Your task to perform on an android device: Search for vegetarian restaurants on Maps Image 0: 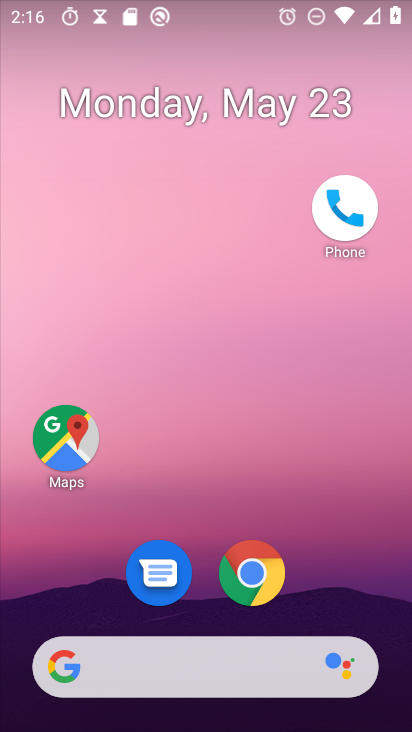
Step 0: click (53, 452)
Your task to perform on an android device: Search for vegetarian restaurants on Maps Image 1: 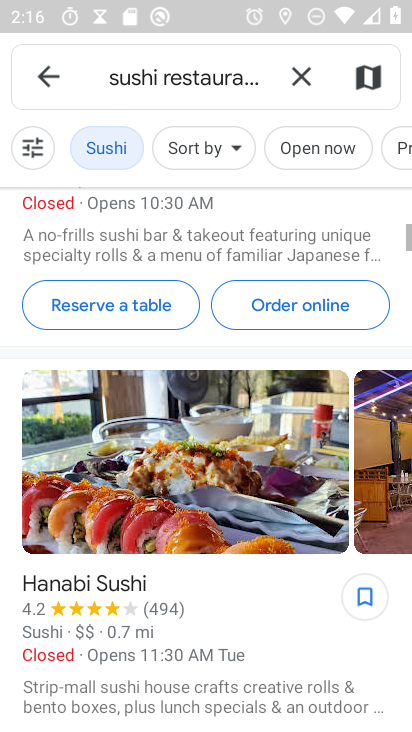
Step 1: click (300, 77)
Your task to perform on an android device: Search for vegetarian restaurants on Maps Image 2: 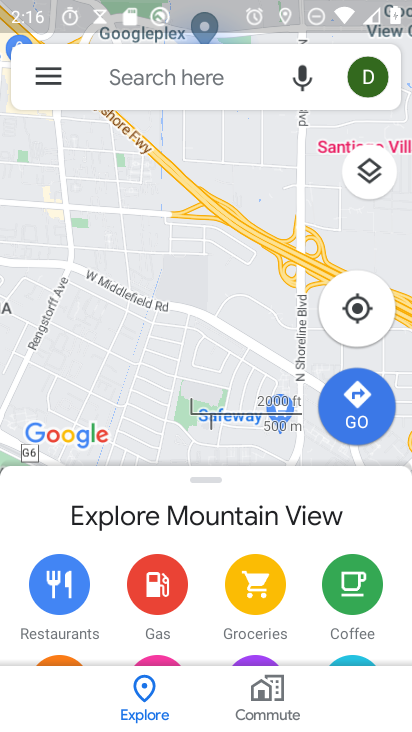
Step 2: click (198, 73)
Your task to perform on an android device: Search for vegetarian restaurants on Maps Image 3: 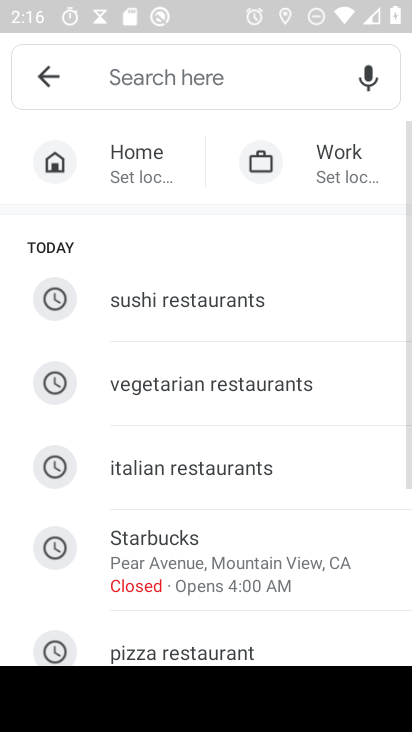
Step 3: click (255, 381)
Your task to perform on an android device: Search for vegetarian restaurants on Maps Image 4: 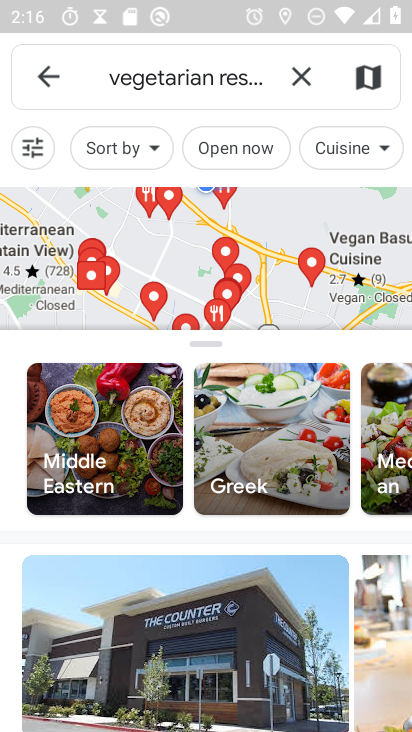
Step 4: task complete